Your task to perform on an android device: toggle data saver in the chrome app Image 0: 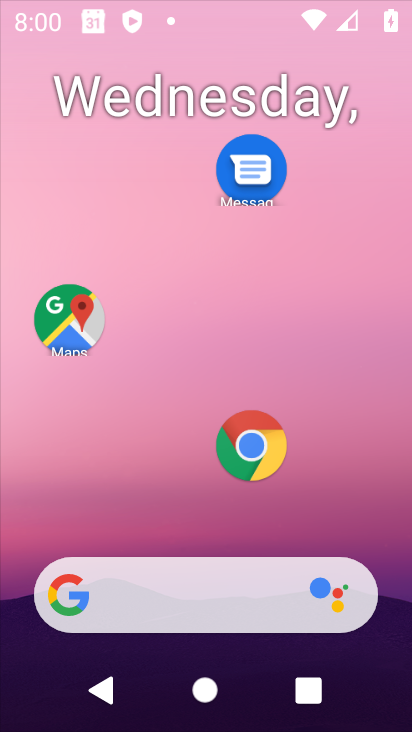
Step 0: drag from (266, 600) to (204, 178)
Your task to perform on an android device: toggle data saver in the chrome app Image 1: 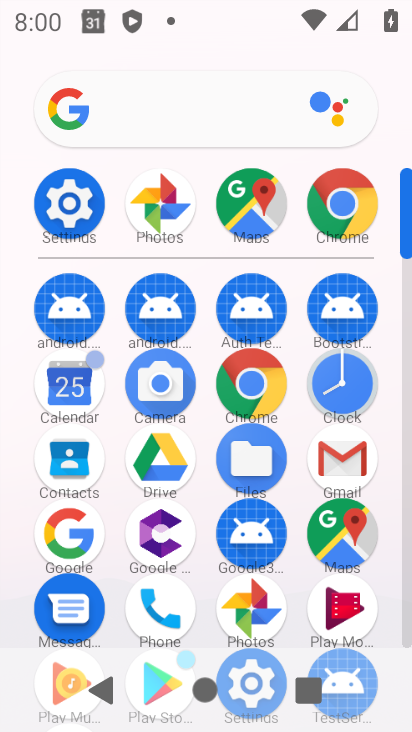
Step 1: click (325, 212)
Your task to perform on an android device: toggle data saver in the chrome app Image 2: 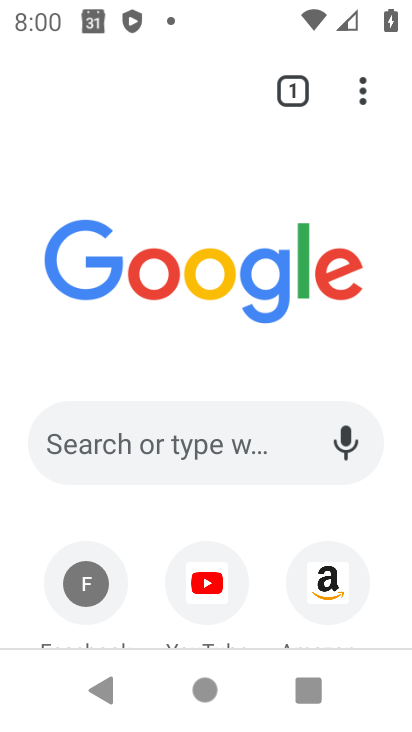
Step 2: drag from (368, 97) to (77, 467)
Your task to perform on an android device: toggle data saver in the chrome app Image 3: 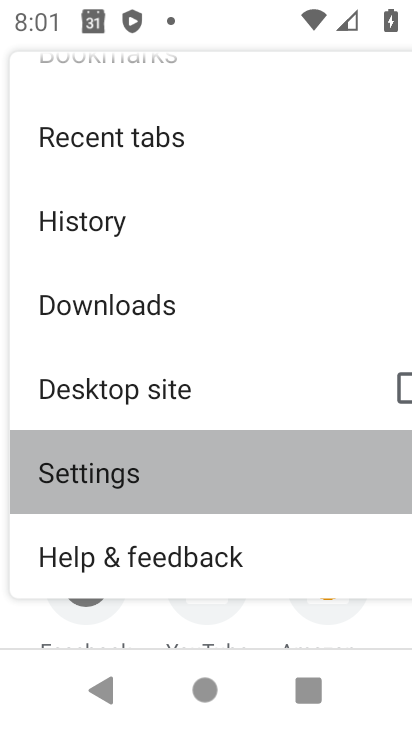
Step 3: click (78, 468)
Your task to perform on an android device: toggle data saver in the chrome app Image 4: 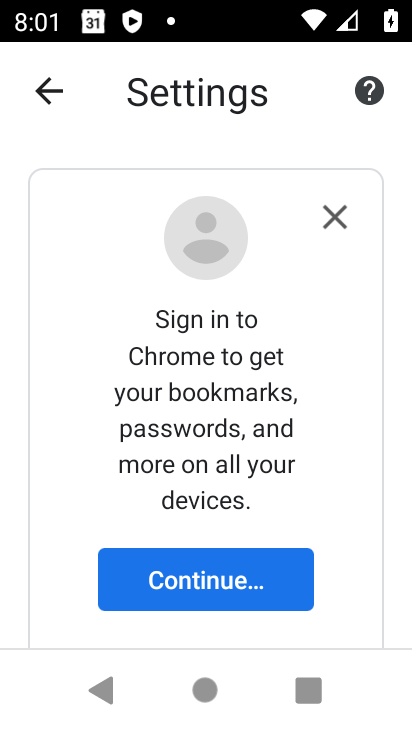
Step 4: drag from (211, 253) to (189, 166)
Your task to perform on an android device: toggle data saver in the chrome app Image 5: 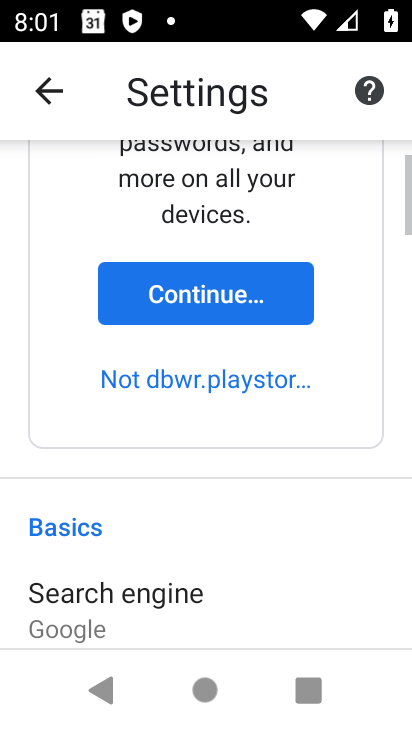
Step 5: click (332, 215)
Your task to perform on an android device: toggle data saver in the chrome app Image 6: 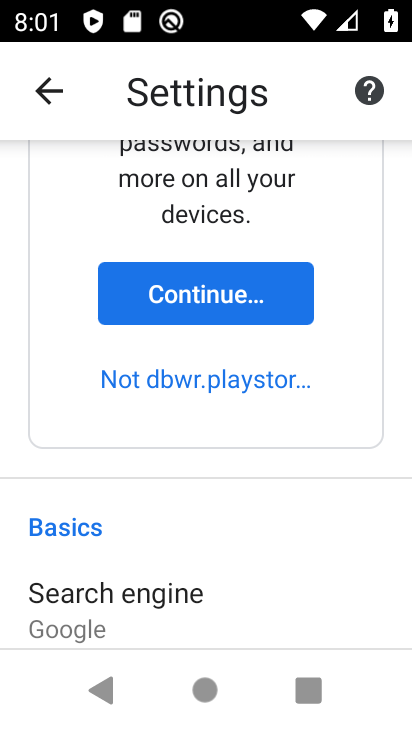
Step 6: click (278, 498)
Your task to perform on an android device: toggle data saver in the chrome app Image 7: 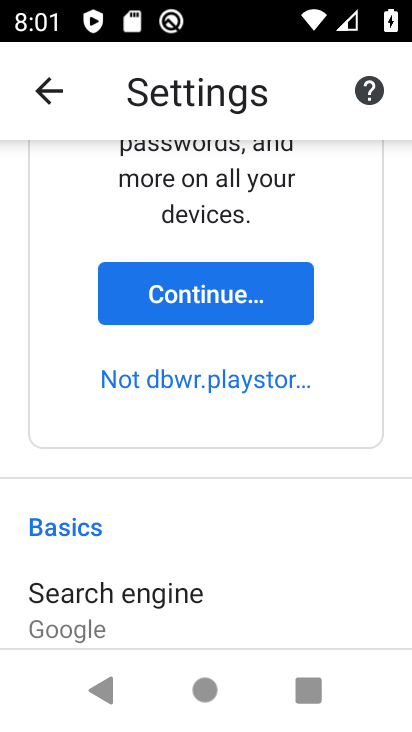
Step 7: drag from (231, 226) to (226, 559)
Your task to perform on an android device: toggle data saver in the chrome app Image 8: 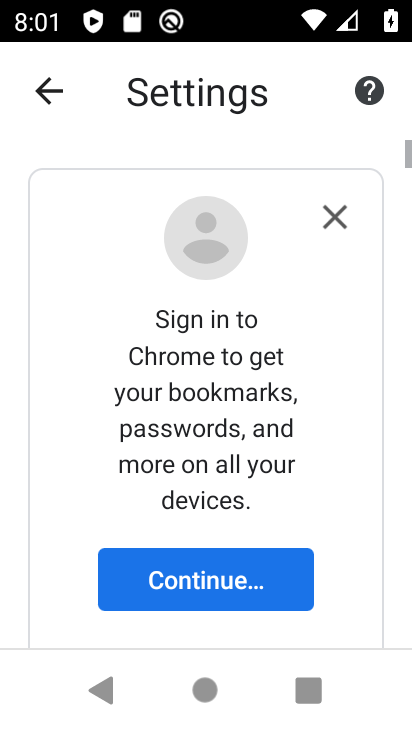
Step 8: drag from (225, 427) to (236, 584)
Your task to perform on an android device: toggle data saver in the chrome app Image 9: 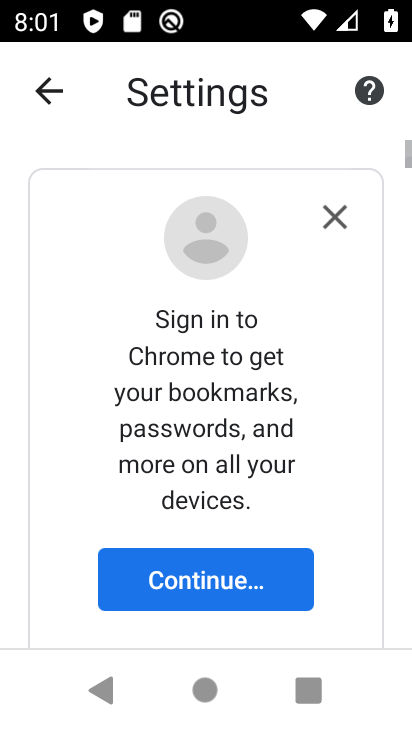
Step 9: click (174, 238)
Your task to perform on an android device: toggle data saver in the chrome app Image 10: 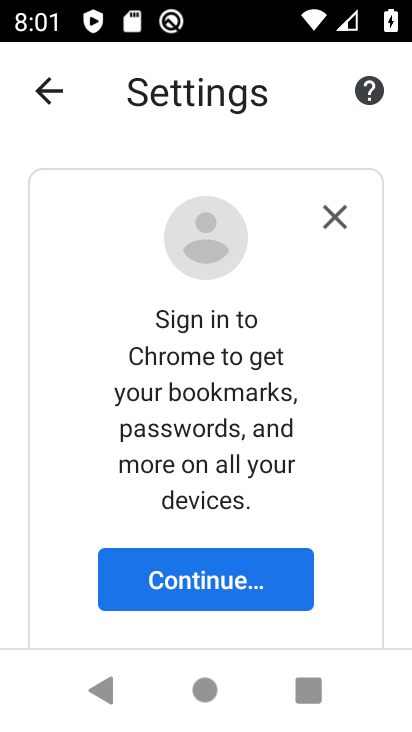
Step 10: click (332, 210)
Your task to perform on an android device: toggle data saver in the chrome app Image 11: 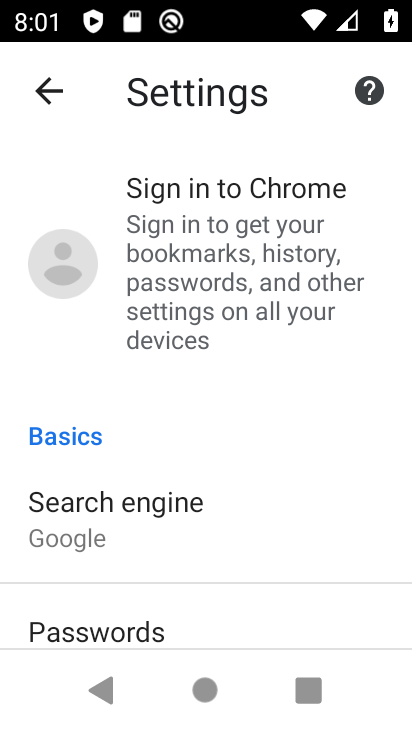
Step 11: drag from (133, 540) to (75, 154)
Your task to perform on an android device: toggle data saver in the chrome app Image 12: 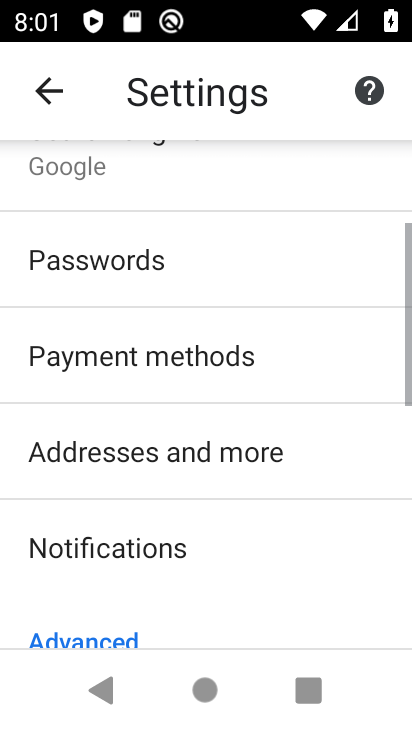
Step 12: drag from (188, 382) to (182, 175)
Your task to perform on an android device: toggle data saver in the chrome app Image 13: 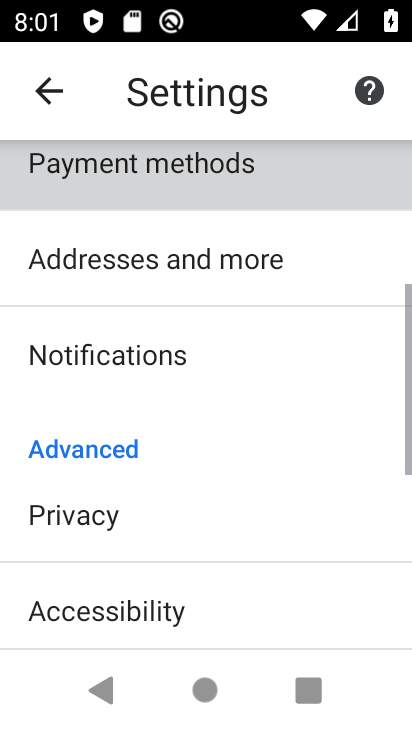
Step 13: drag from (182, 445) to (211, 210)
Your task to perform on an android device: toggle data saver in the chrome app Image 14: 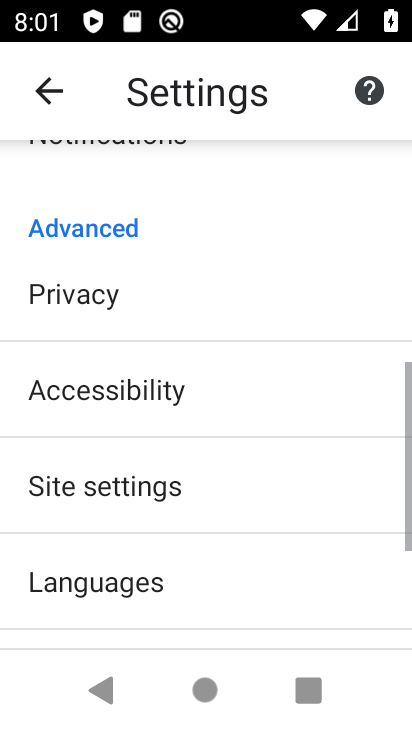
Step 14: drag from (213, 465) to (208, 240)
Your task to perform on an android device: toggle data saver in the chrome app Image 15: 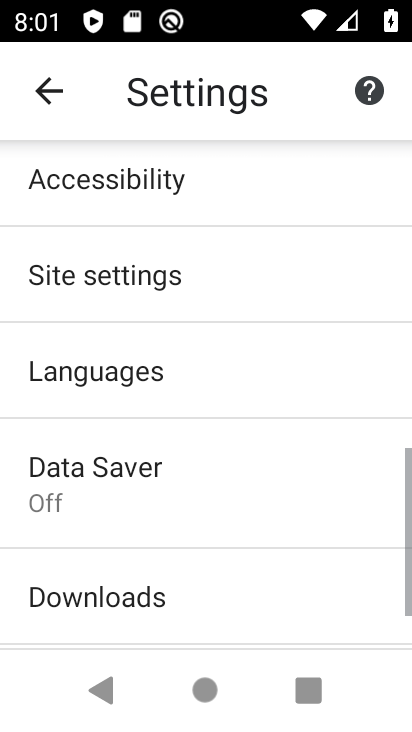
Step 15: click (68, 454)
Your task to perform on an android device: toggle data saver in the chrome app Image 16: 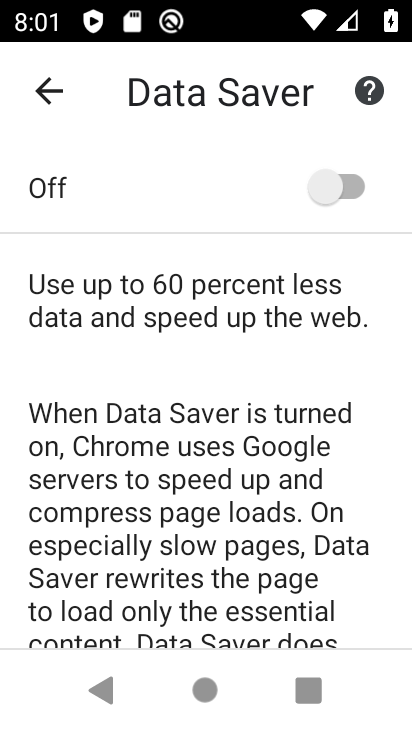
Step 16: click (333, 183)
Your task to perform on an android device: toggle data saver in the chrome app Image 17: 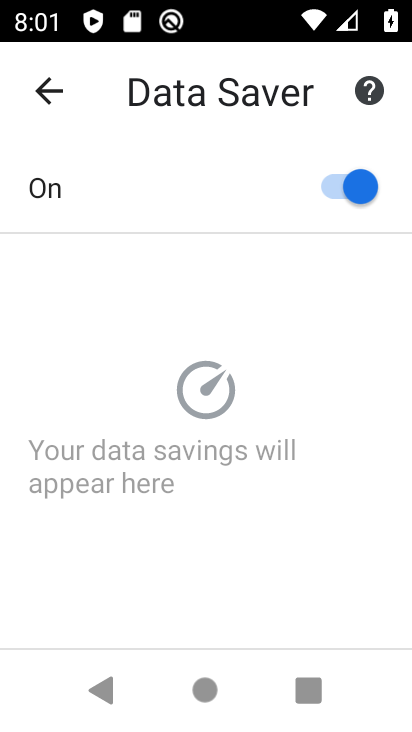
Step 17: task complete